Your task to perform on an android device: toggle translation in the chrome app Image 0: 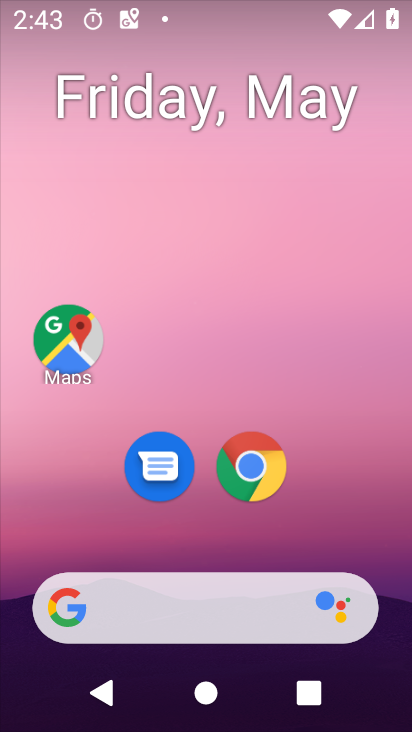
Step 0: drag from (347, 532) to (376, 3)
Your task to perform on an android device: toggle translation in the chrome app Image 1: 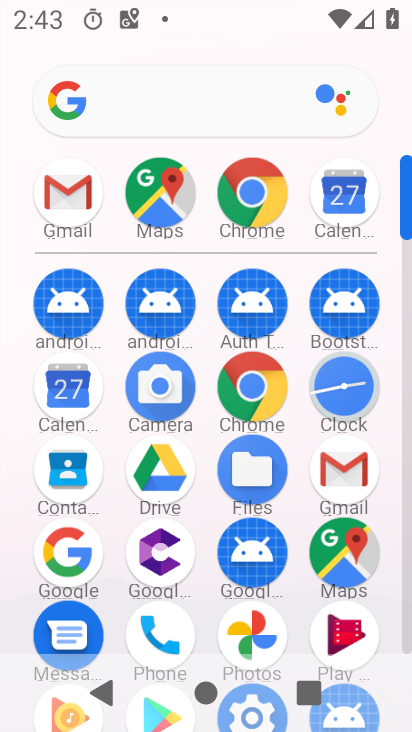
Step 1: click (259, 199)
Your task to perform on an android device: toggle translation in the chrome app Image 2: 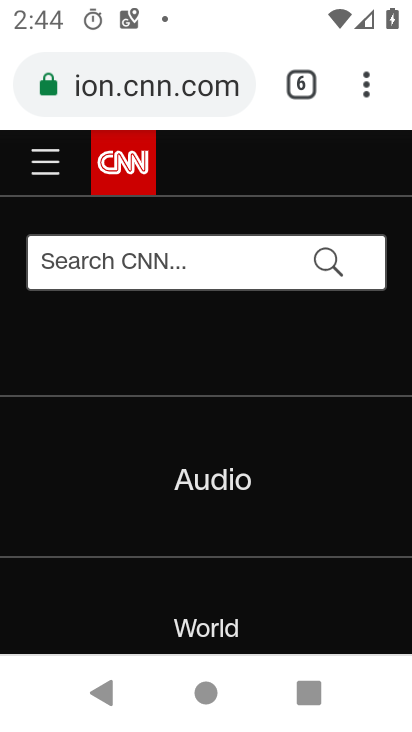
Step 2: drag from (370, 73) to (110, 523)
Your task to perform on an android device: toggle translation in the chrome app Image 3: 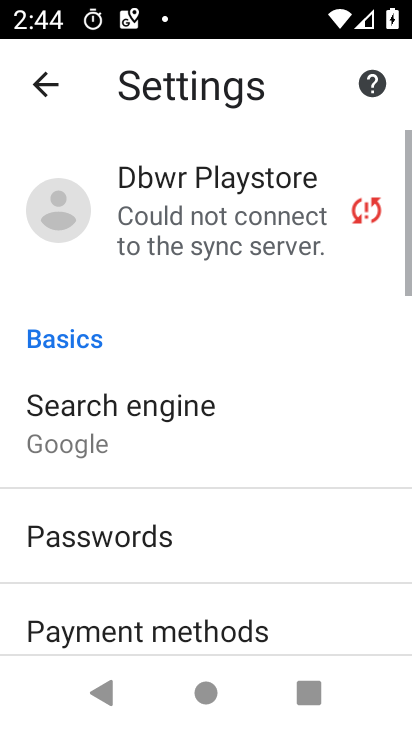
Step 3: drag from (142, 563) to (211, 121)
Your task to perform on an android device: toggle translation in the chrome app Image 4: 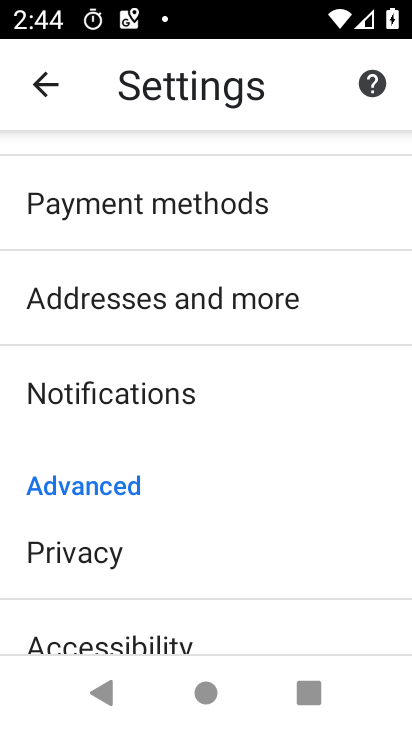
Step 4: drag from (163, 593) to (247, 105)
Your task to perform on an android device: toggle translation in the chrome app Image 5: 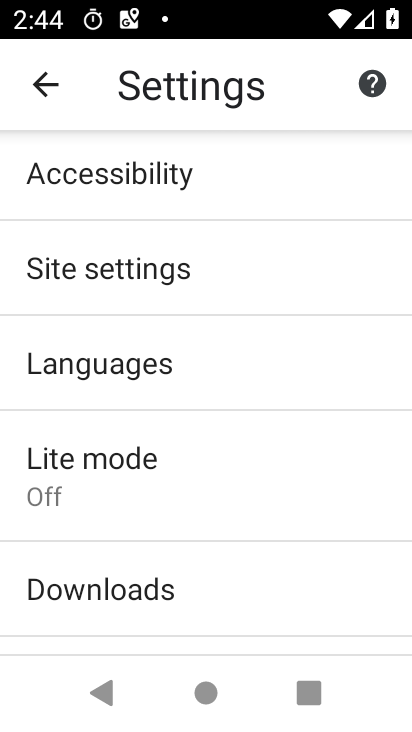
Step 5: click (122, 367)
Your task to perform on an android device: toggle translation in the chrome app Image 6: 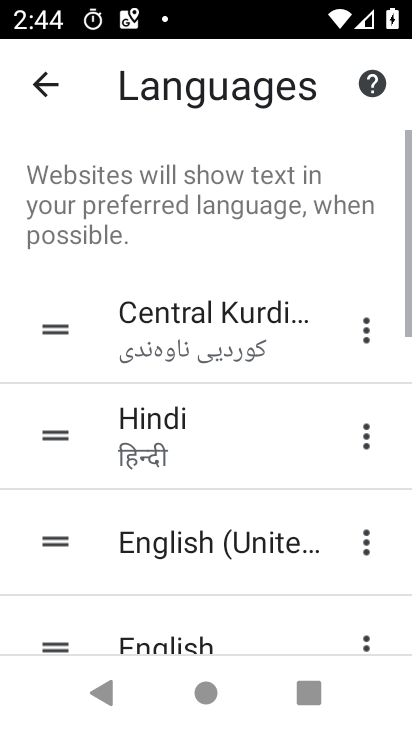
Step 6: drag from (265, 587) to (301, 199)
Your task to perform on an android device: toggle translation in the chrome app Image 7: 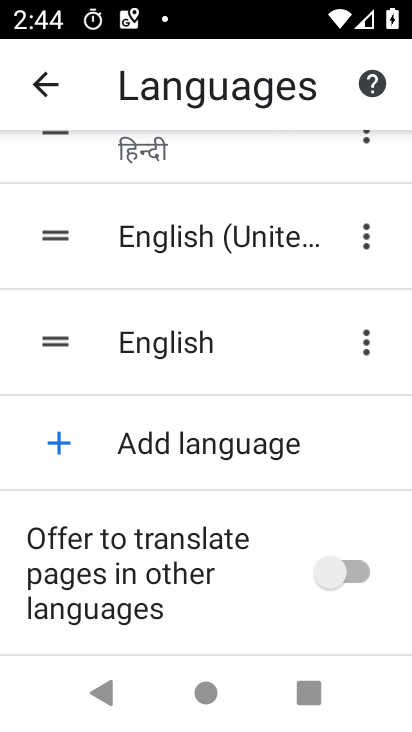
Step 7: drag from (222, 572) to (265, 231)
Your task to perform on an android device: toggle translation in the chrome app Image 8: 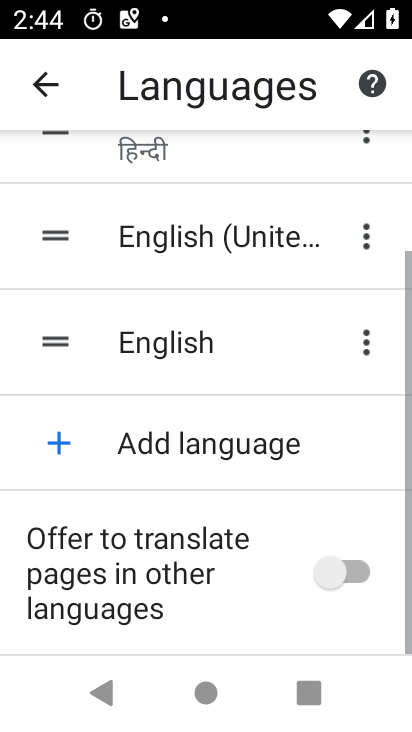
Step 8: click (323, 573)
Your task to perform on an android device: toggle translation in the chrome app Image 9: 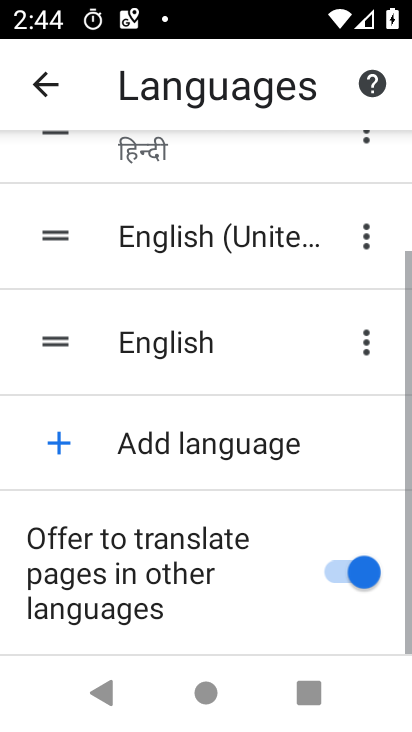
Step 9: task complete